Your task to perform on an android device: see tabs open on other devices in the chrome app Image 0: 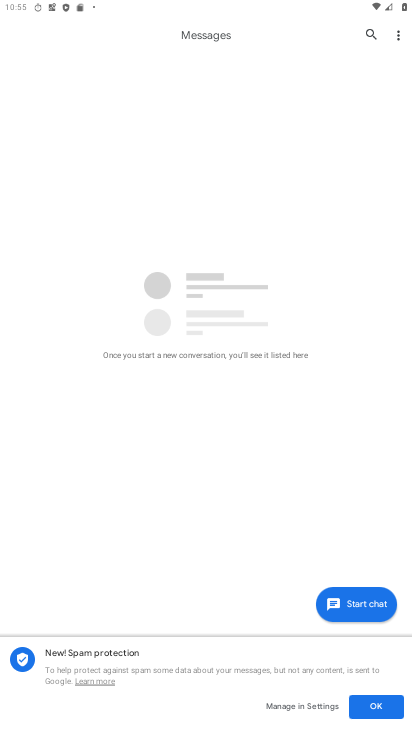
Step 0: press home button
Your task to perform on an android device: see tabs open on other devices in the chrome app Image 1: 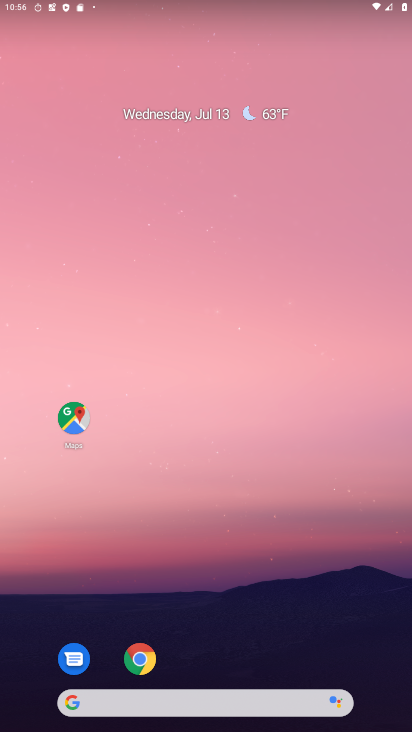
Step 1: drag from (249, 627) to (223, 138)
Your task to perform on an android device: see tabs open on other devices in the chrome app Image 2: 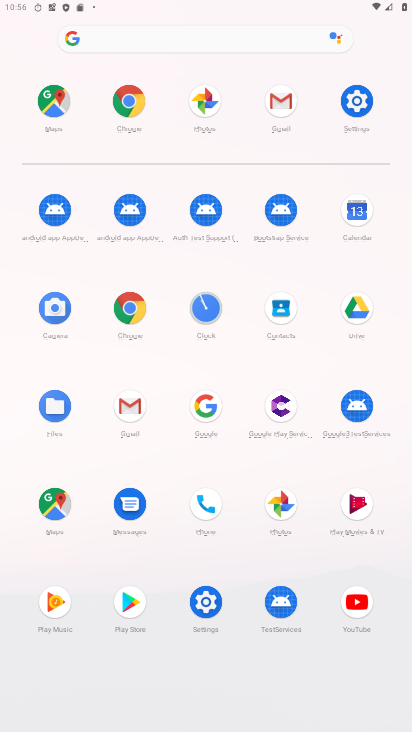
Step 2: click (136, 106)
Your task to perform on an android device: see tabs open on other devices in the chrome app Image 3: 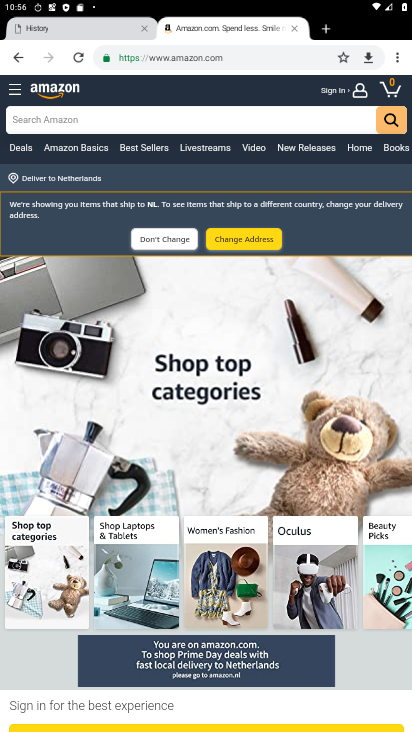
Step 3: task complete